Your task to perform on an android device: set an alarm Image 0: 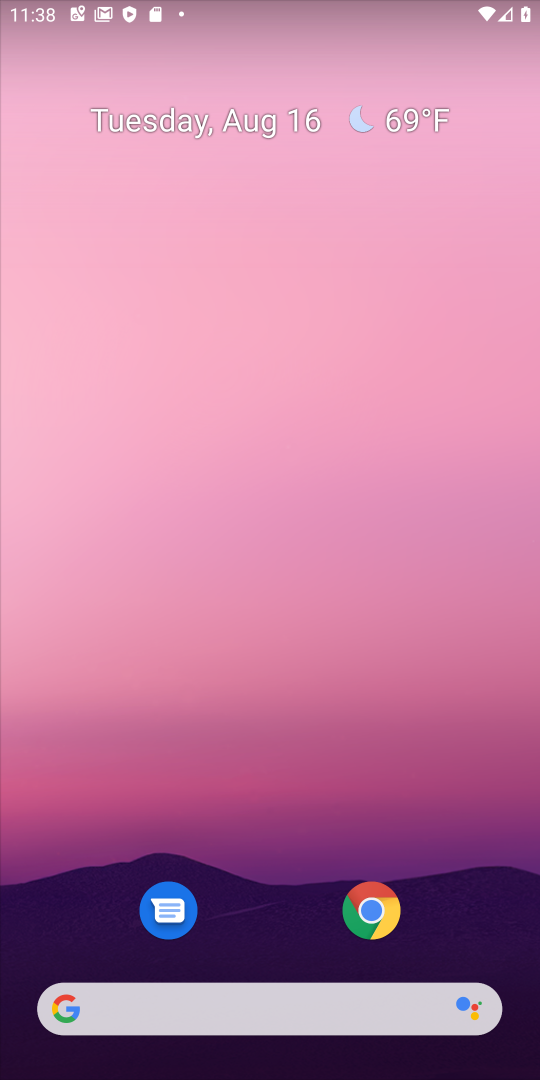
Step 0: drag from (289, 755) to (324, 181)
Your task to perform on an android device: set an alarm Image 1: 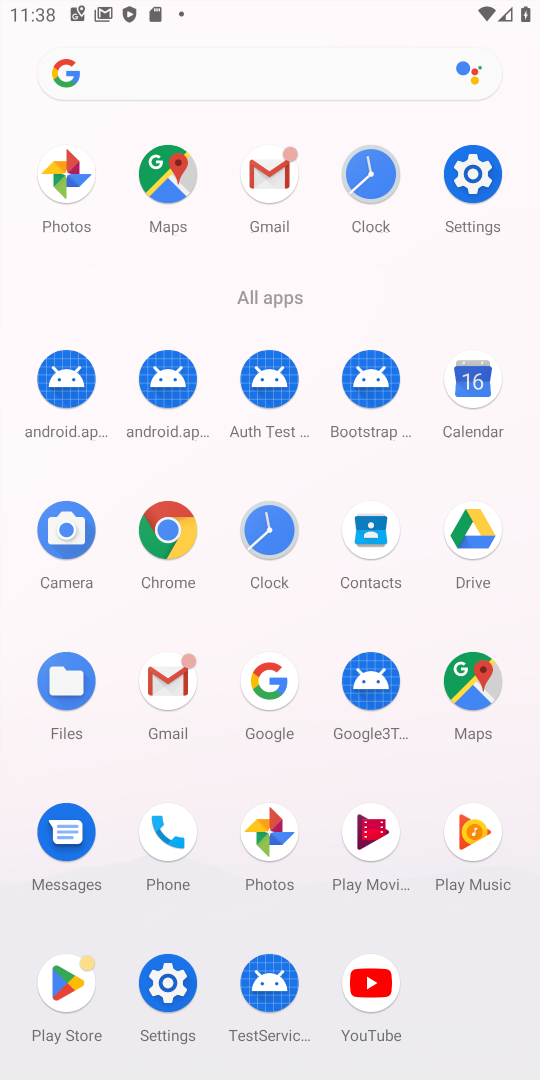
Step 1: click (274, 539)
Your task to perform on an android device: set an alarm Image 2: 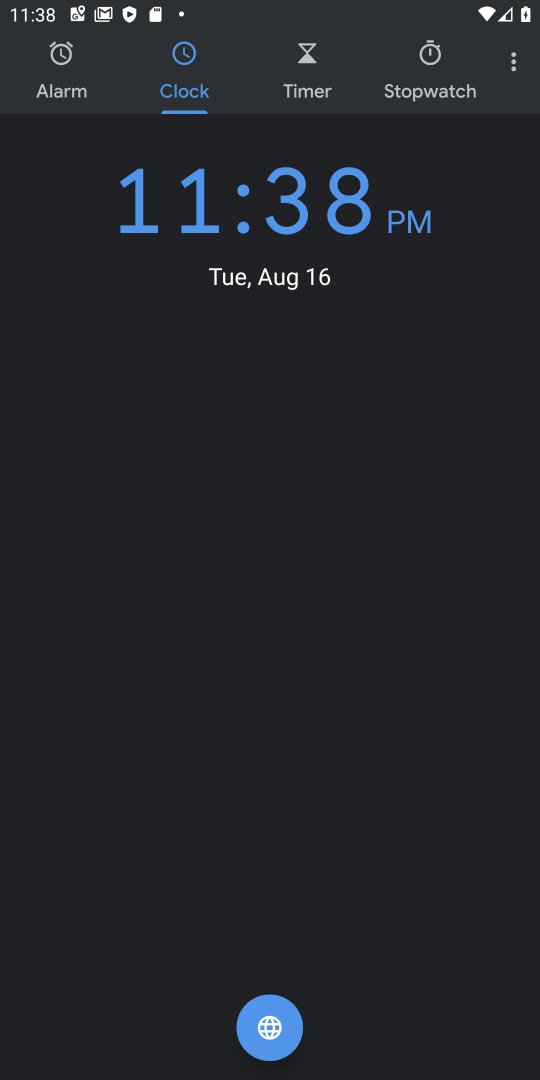
Step 2: click (82, 65)
Your task to perform on an android device: set an alarm Image 3: 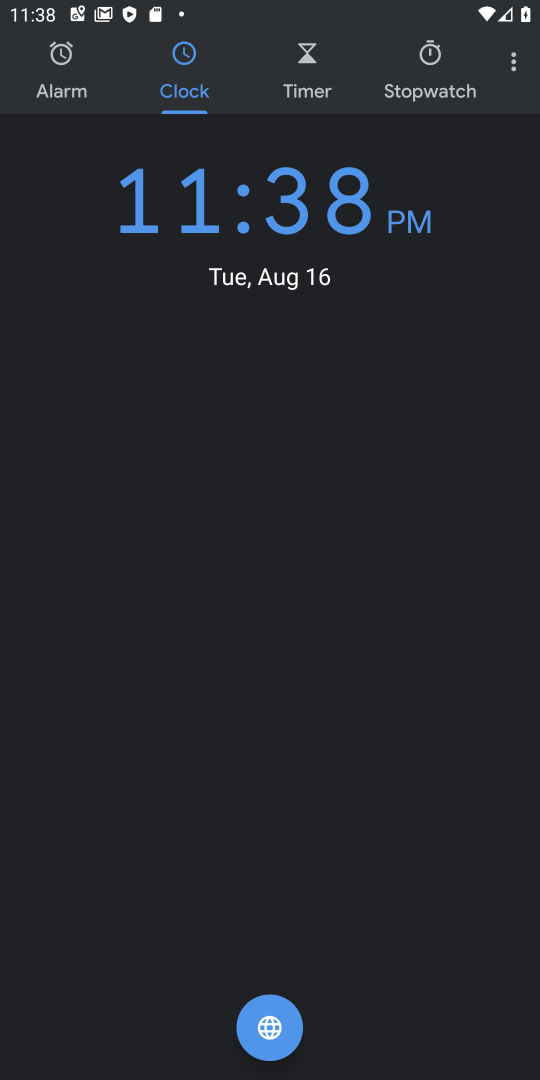
Step 3: click (87, 100)
Your task to perform on an android device: set an alarm Image 4: 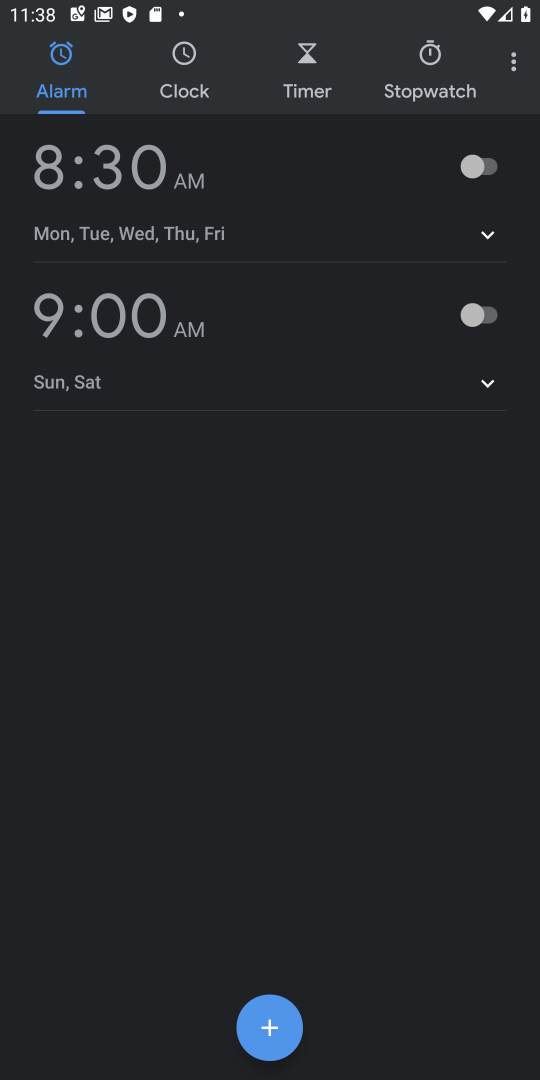
Step 4: click (283, 1028)
Your task to perform on an android device: set an alarm Image 5: 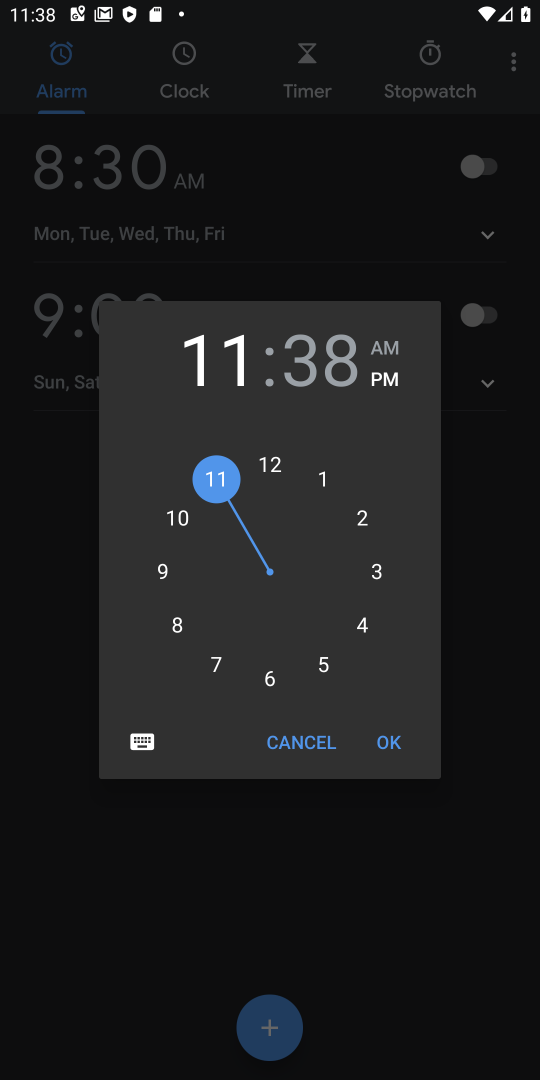
Step 5: click (375, 747)
Your task to perform on an android device: set an alarm Image 6: 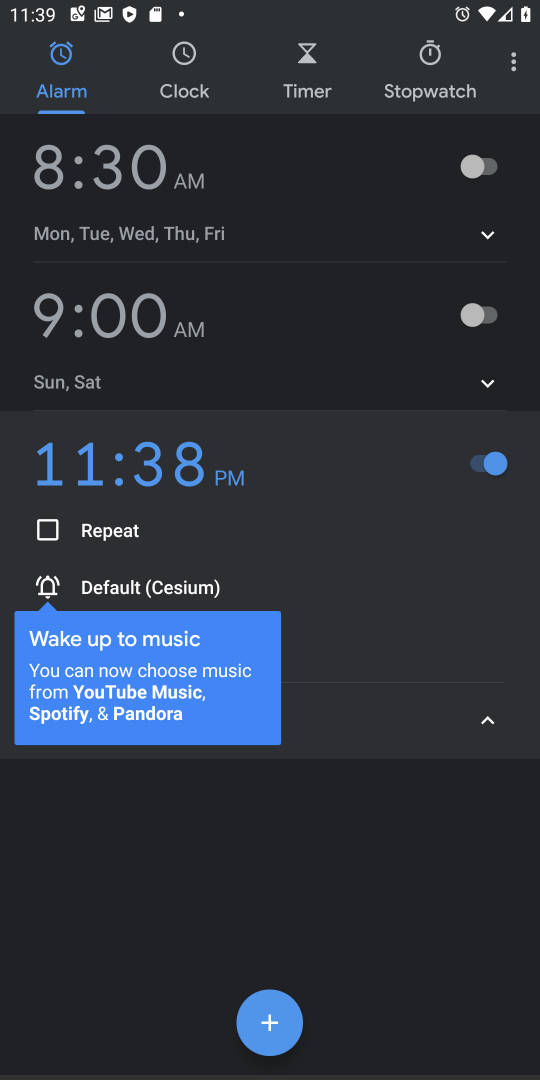
Step 6: task complete